Your task to perform on an android device: turn notification dots off Image 0: 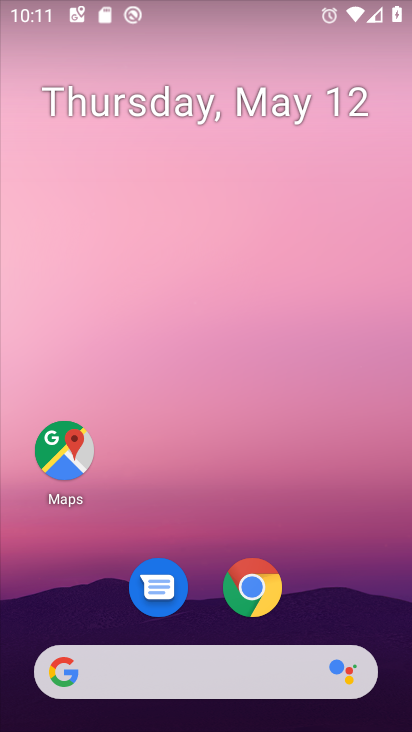
Step 0: drag from (366, 609) to (251, 39)
Your task to perform on an android device: turn notification dots off Image 1: 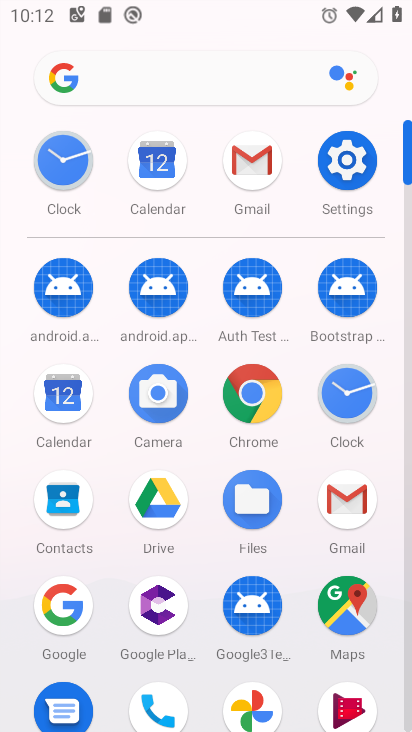
Step 1: click (355, 170)
Your task to perform on an android device: turn notification dots off Image 2: 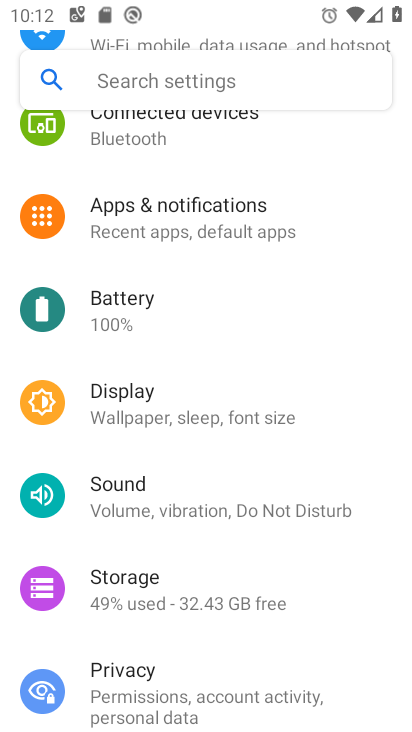
Step 2: click (265, 232)
Your task to perform on an android device: turn notification dots off Image 3: 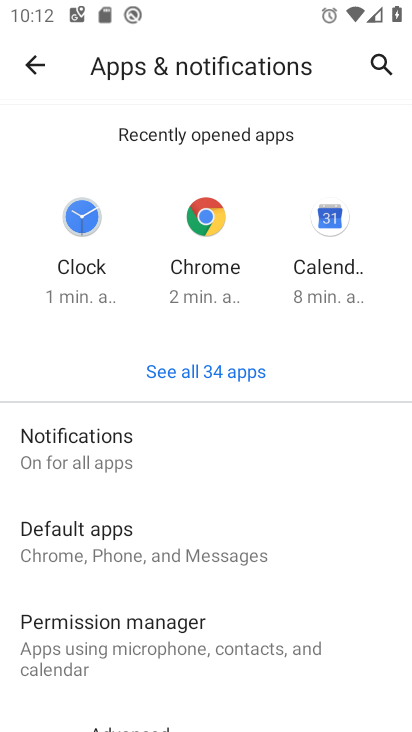
Step 3: click (221, 456)
Your task to perform on an android device: turn notification dots off Image 4: 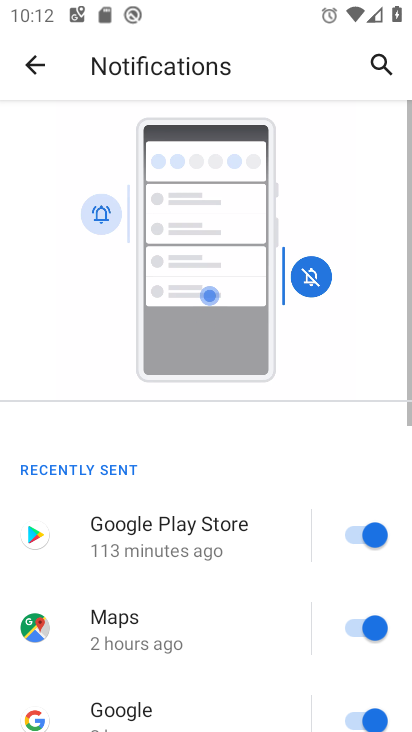
Step 4: drag from (192, 622) to (211, 75)
Your task to perform on an android device: turn notification dots off Image 5: 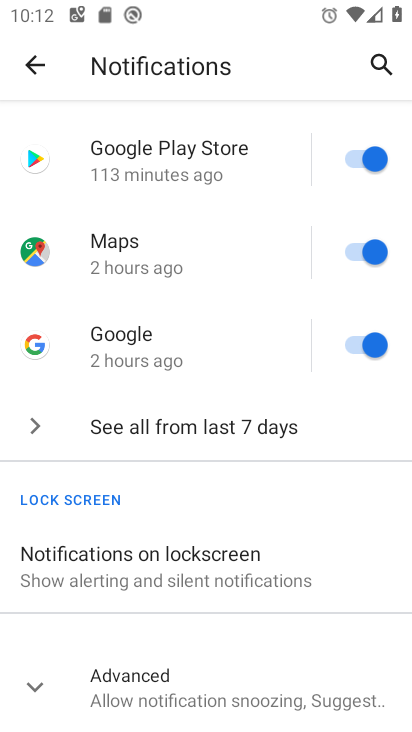
Step 5: click (81, 666)
Your task to perform on an android device: turn notification dots off Image 6: 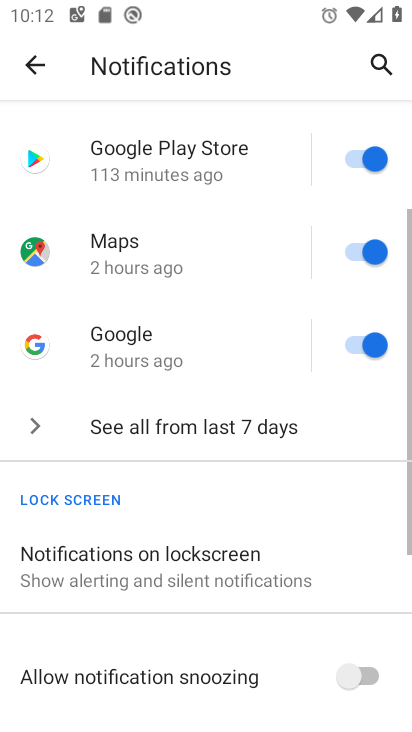
Step 6: task complete